Your task to perform on an android device: Go to Yahoo.com Image 0: 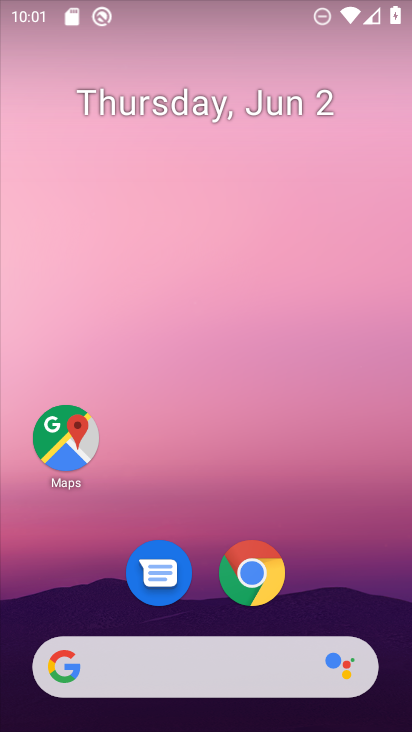
Step 0: click (257, 573)
Your task to perform on an android device: Go to Yahoo.com Image 1: 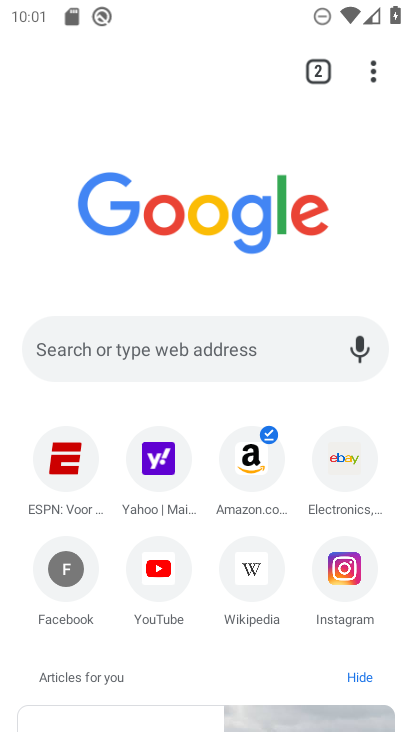
Step 1: click (175, 466)
Your task to perform on an android device: Go to Yahoo.com Image 2: 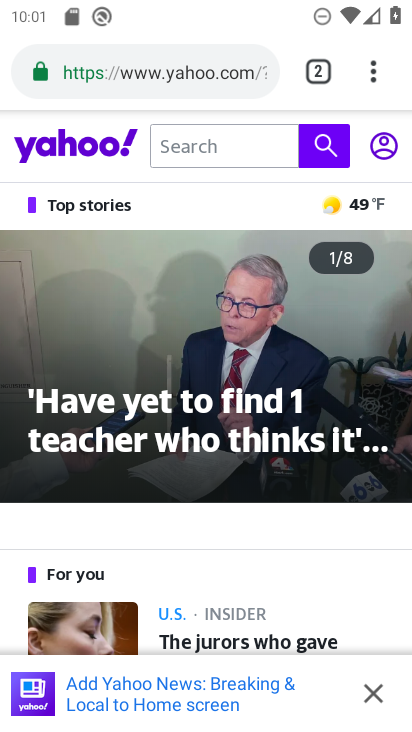
Step 2: task complete